Your task to perform on an android device: check data usage Image 0: 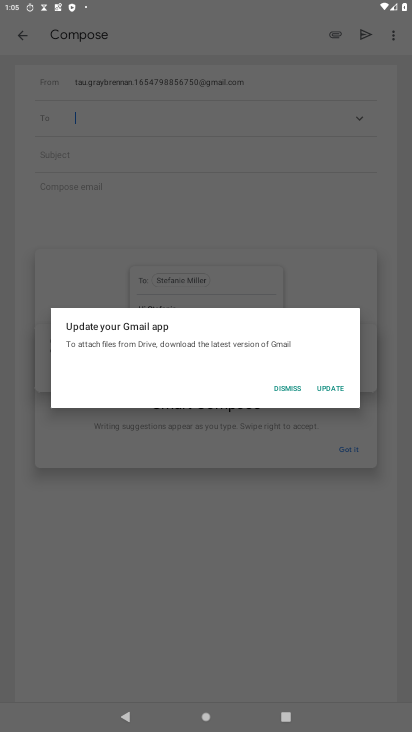
Step 0: press home button
Your task to perform on an android device: check data usage Image 1: 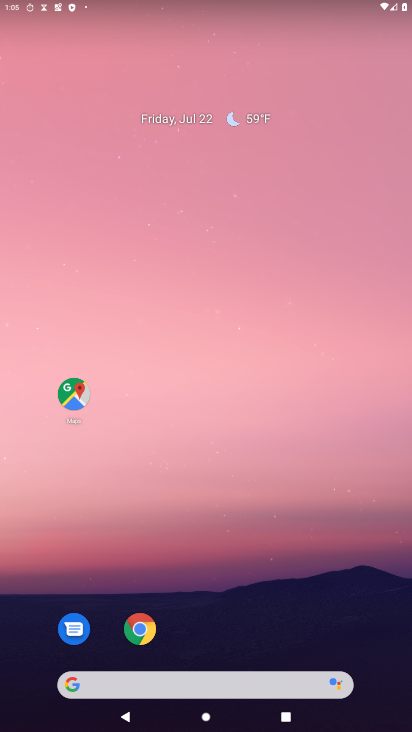
Step 1: drag from (255, 638) to (258, 23)
Your task to perform on an android device: check data usage Image 2: 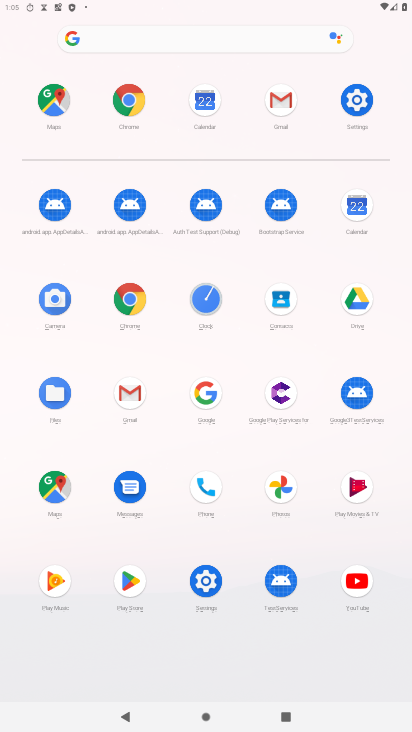
Step 2: click (357, 90)
Your task to perform on an android device: check data usage Image 3: 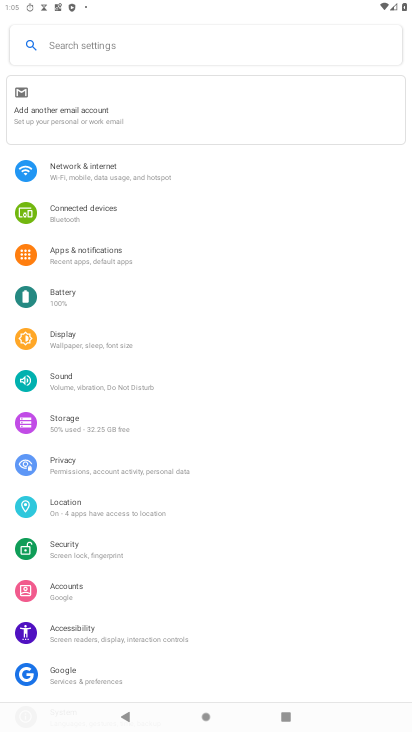
Step 3: click (121, 174)
Your task to perform on an android device: check data usage Image 4: 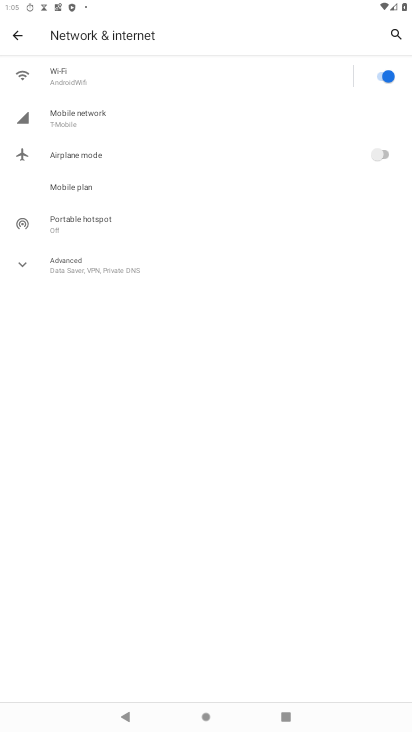
Step 4: click (74, 119)
Your task to perform on an android device: check data usage Image 5: 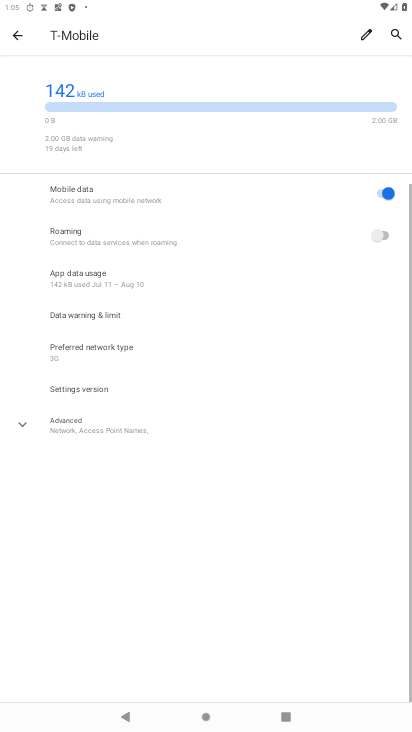
Step 5: task complete